Your task to perform on an android device: open a bookmark in the chrome app Image 0: 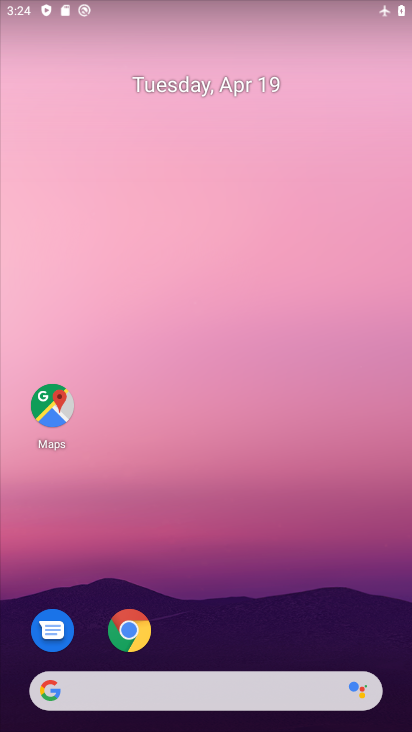
Step 0: drag from (246, 243) to (246, 198)
Your task to perform on an android device: open a bookmark in the chrome app Image 1: 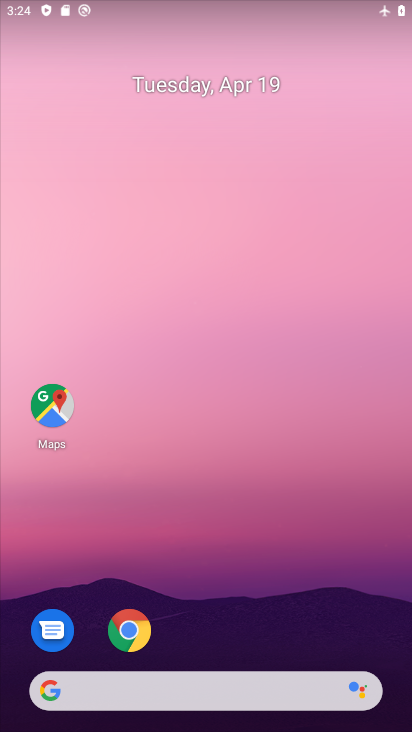
Step 1: drag from (273, 580) to (269, 284)
Your task to perform on an android device: open a bookmark in the chrome app Image 2: 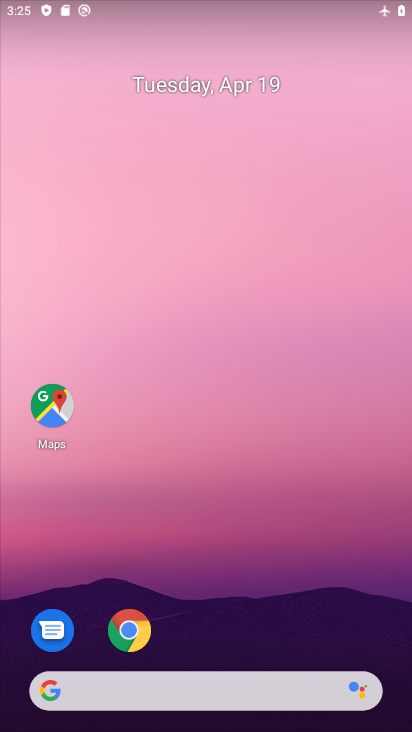
Step 2: drag from (339, 532) to (297, 65)
Your task to perform on an android device: open a bookmark in the chrome app Image 3: 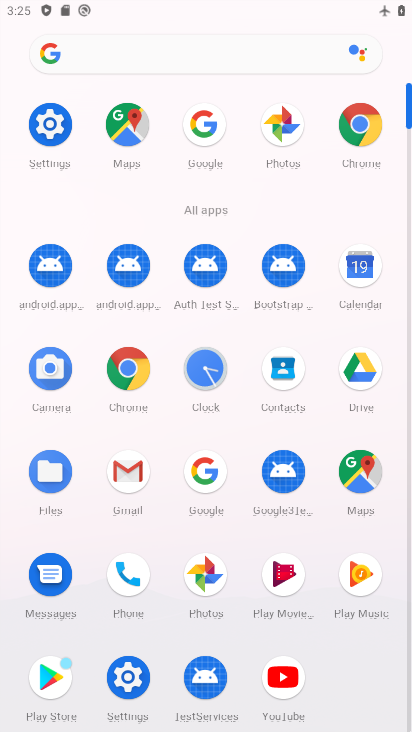
Step 3: click (356, 134)
Your task to perform on an android device: open a bookmark in the chrome app Image 4: 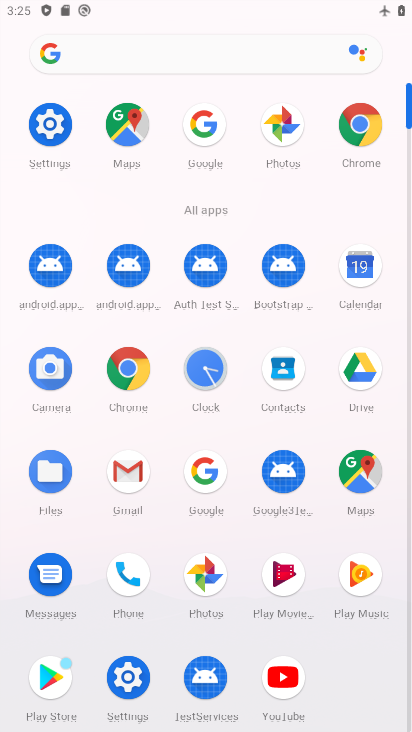
Step 4: click (340, 132)
Your task to perform on an android device: open a bookmark in the chrome app Image 5: 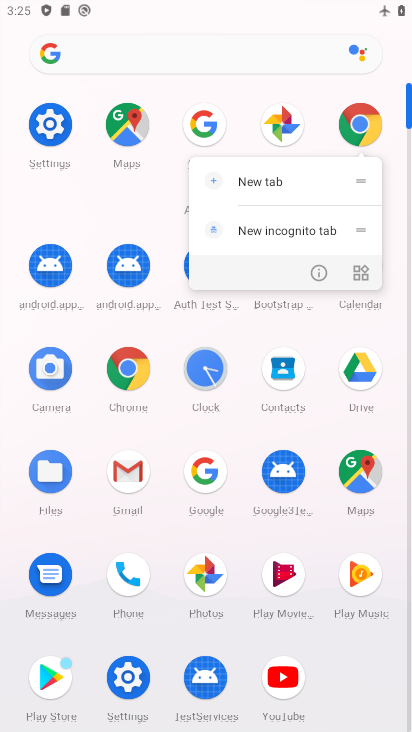
Step 5: click (363, 131)
Your task to perform on an android device: open a bookmark in the chrome app Image 6: 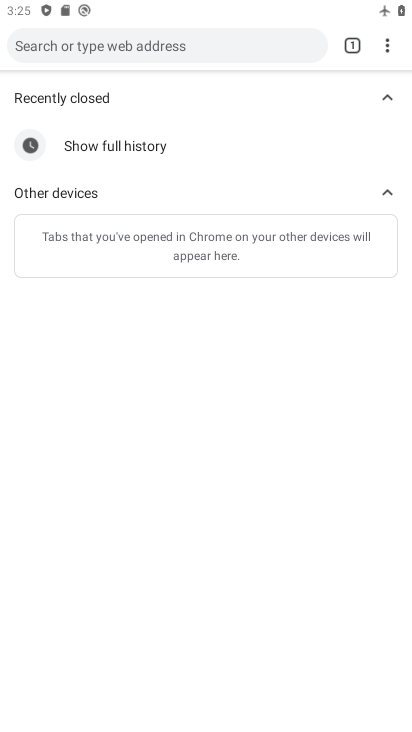
Step 6: task complete